Your task to perform on an android device: Open Chrome and go to settings Image 0: 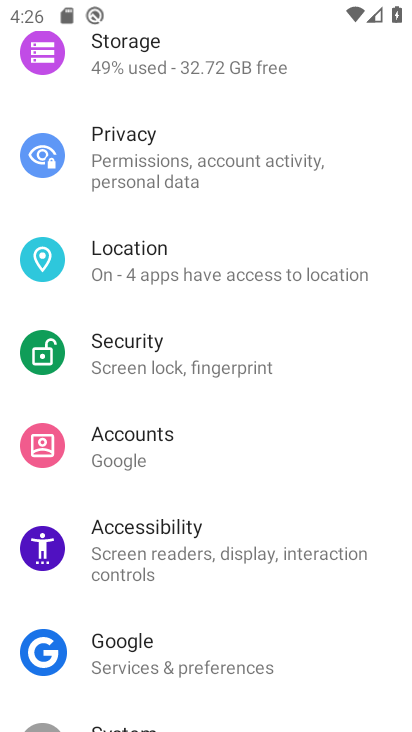
Step 0: press home button
Your task to perform on an android device: Open Chrome and go to settings Image 1: 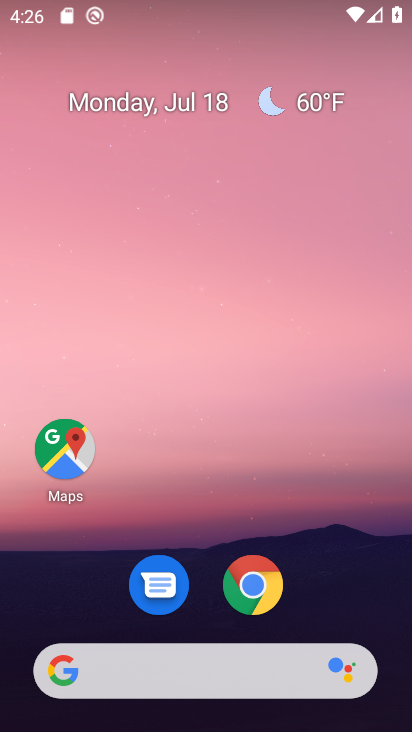
Step 1: click (250, 585)
Your task to perform on an android device: Open Chrome and go to settings Image 2: 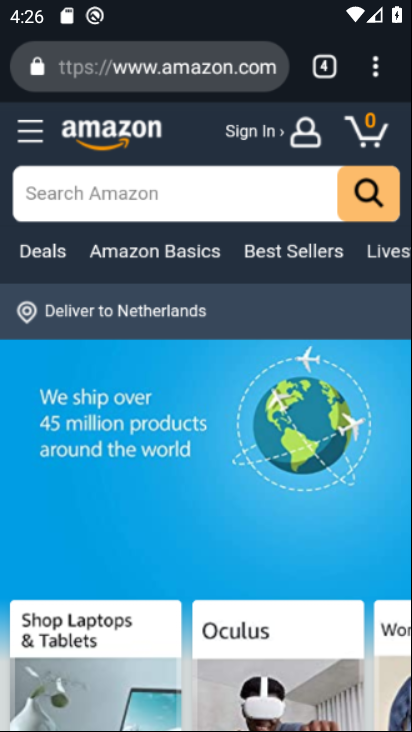
Step 2: click (374, 84)
Your task to perform on an android device: Open Chrome and go to settings Image 3: 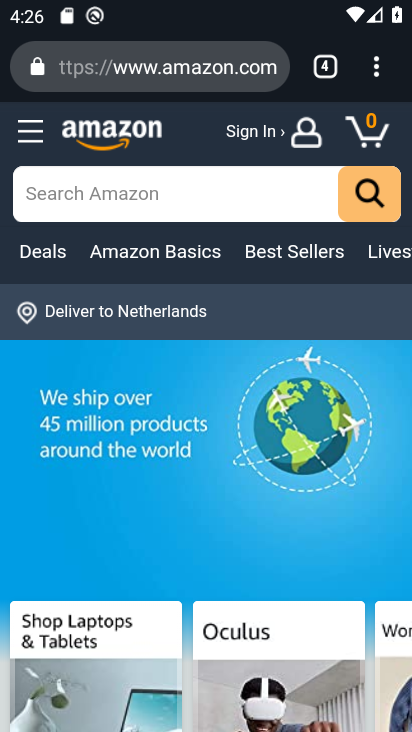
Step 3: click (374, 84)
Your task to perform on an android device: Open Chrome and go to settings Image 4: 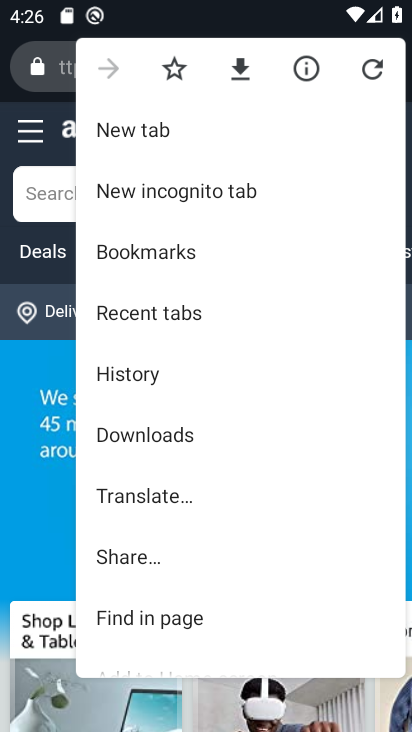
Step 4: drag from (192, 512) to (212, 212)
Your task to perform on an android device: Open Chrome and go to settings Image 5: 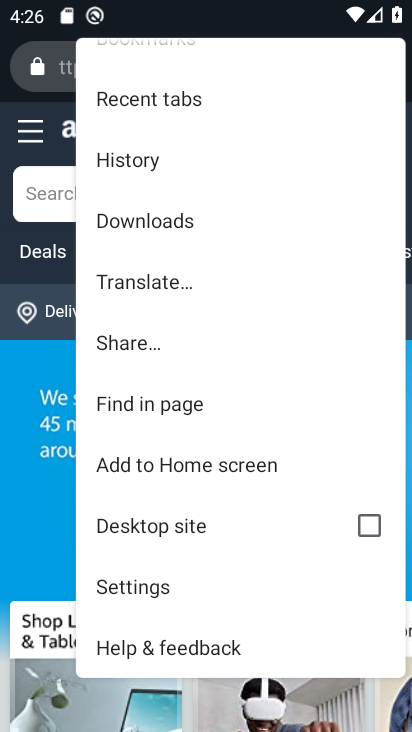
Step 5: click (158, 582)
Your task to perform on an android device: Open Chrome and go to settings Image 6: 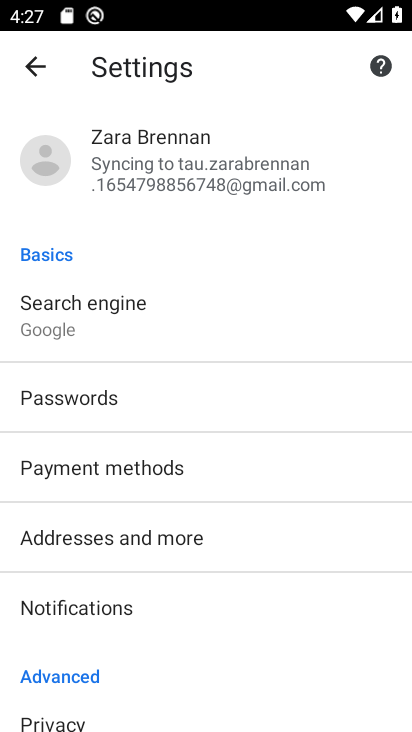
Step 6: task complete